Your task to perform on an android device: Do I have any events tomorrow? Image 0: 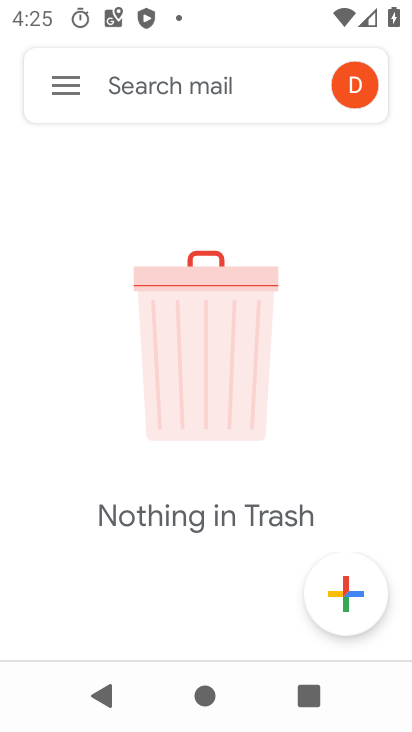
Step 0: press home button
Your task to perform on an android device: Do I have any events tomorrow? Image 1: 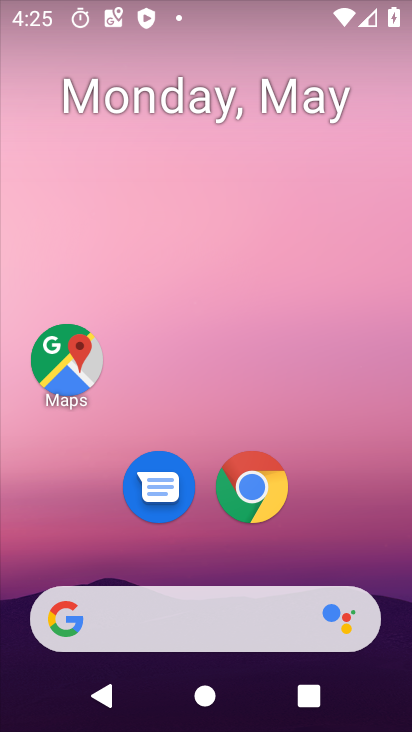
Step 1: drag from (362, 540) to (335, 20)
Your task to perform on an android device: Do I have any events tomorrow? Image 2: 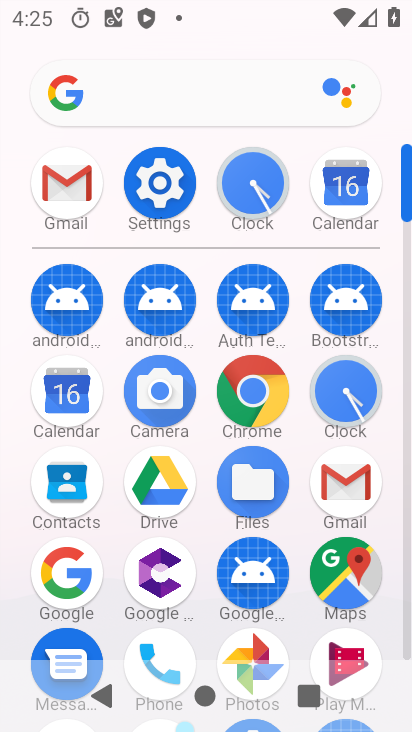
Step 2: click (338, 193)
Your task to perform on an android device: Do I have any events tomorrow? Image 3: 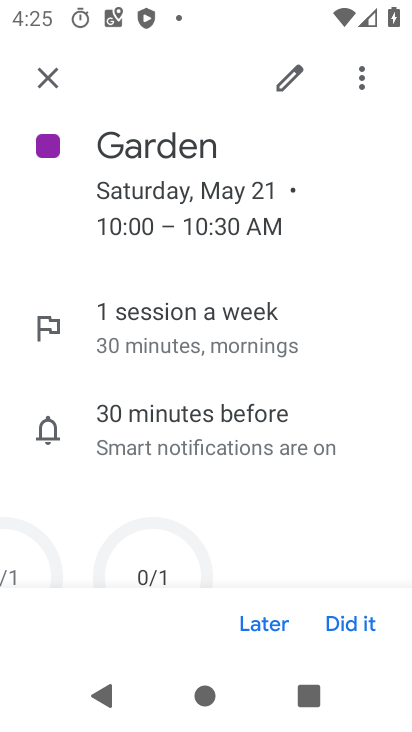
Step 3: click (48, 74)
Your task to perform on an android device: Do I have any events tomorrow? Image 4: 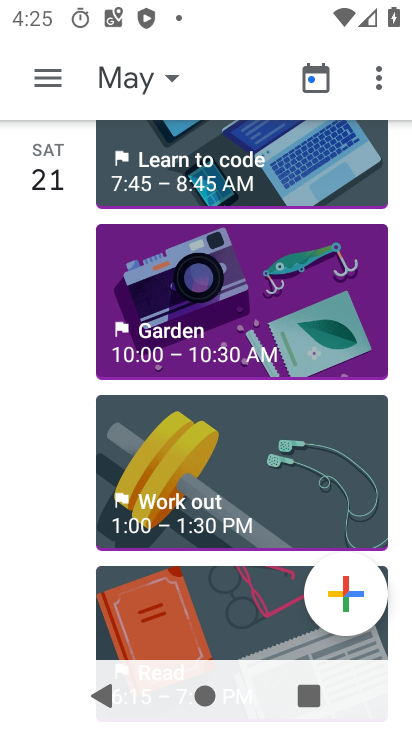
Step 4: drag from (161, 179) to (152, 537)
Your task to perform on an android device: Do I have any events tomorrow? Image 5: 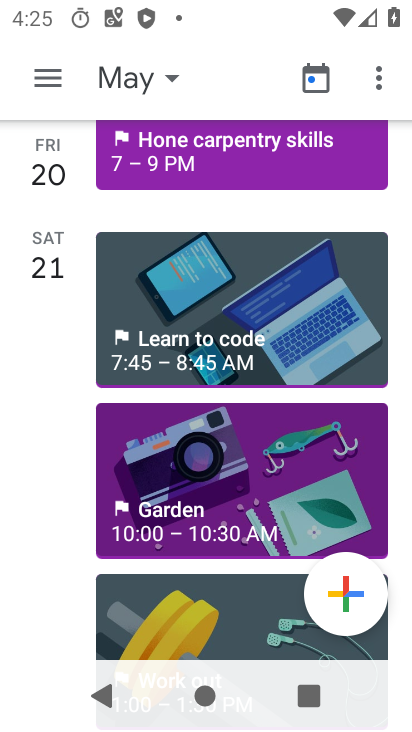
Step 5: drag from (254, 192) to (200, 573)
Your task to perform on an android device: Do I have any events tomorrow? Image 6: 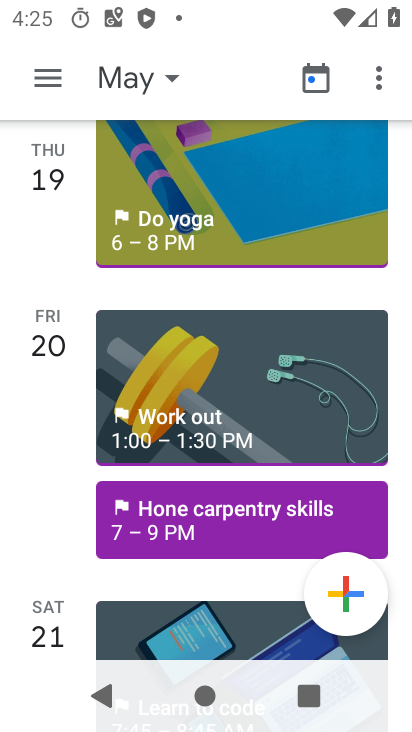
Step 6: drag from (265, 127) to (196, 555)
Your task to perform on an android device: Do I have any events tomorrow? Image 7: 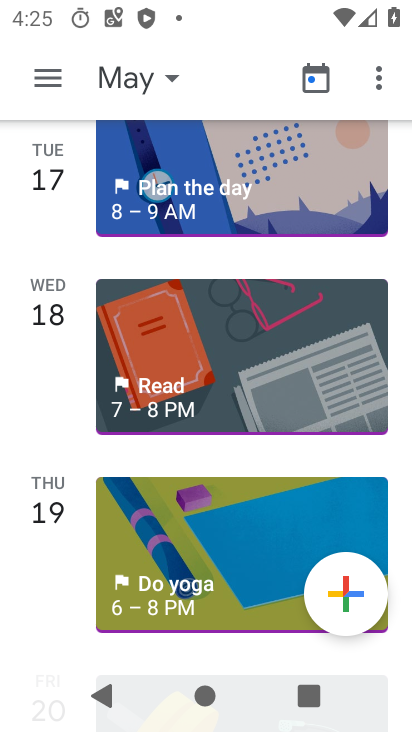
Step 7: drag from (251, 190) to (174, 544)
Your task to perform on an android device: Do I have any events tomorrow? Image 8: 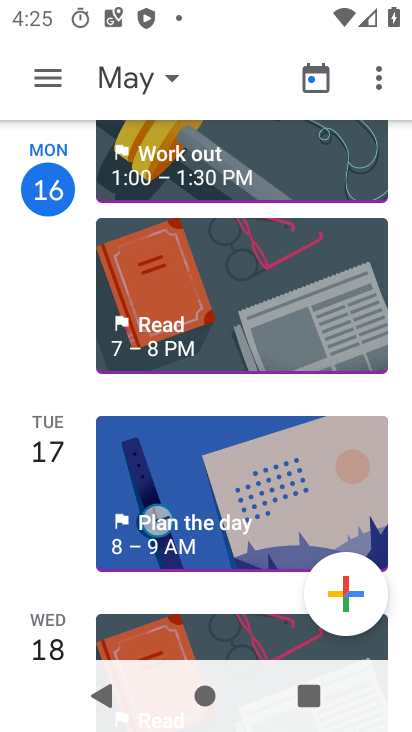
Step 8: drag from (246, 481) to (252, 391)
Your task to perform on an android device: Do I have any events tomorrow? Image 9: 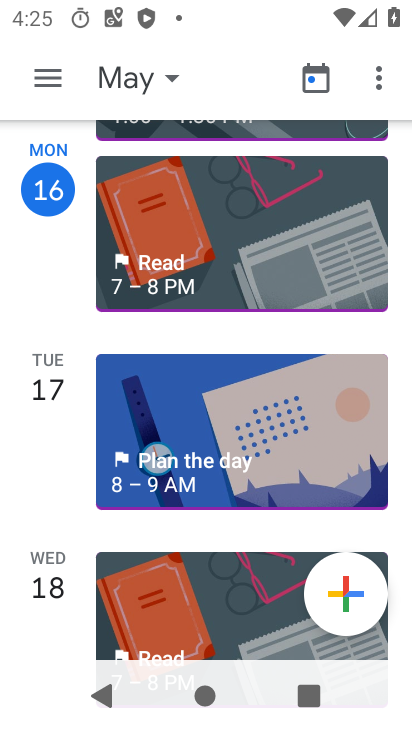
Step 9: click (233, 408)
Your task to perform on an android device: Do I have any events tomorrow? Image 10: 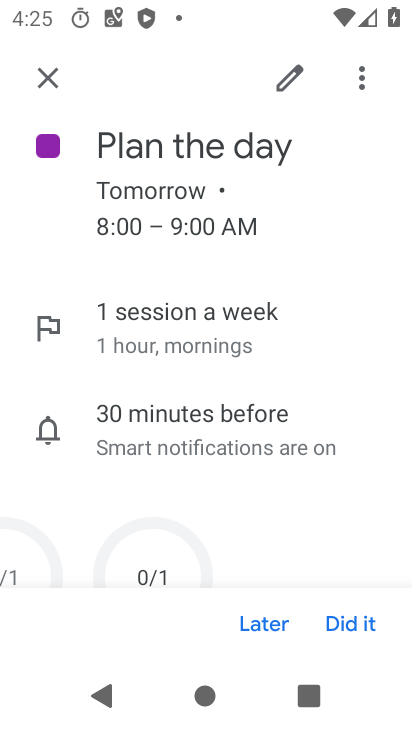
Step 10: task complete